Your task to perform on an android device: turn off translation in the chrome app Image 0: 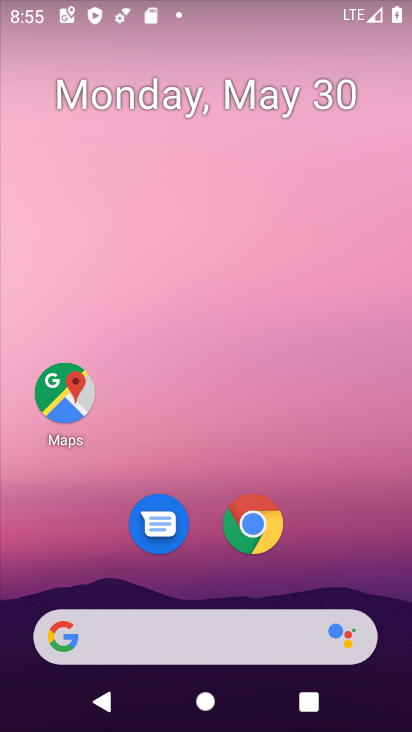
Step 0: click (265, 530)
Your task to perform on an android device: turn off translation in the chrome app Image 1: 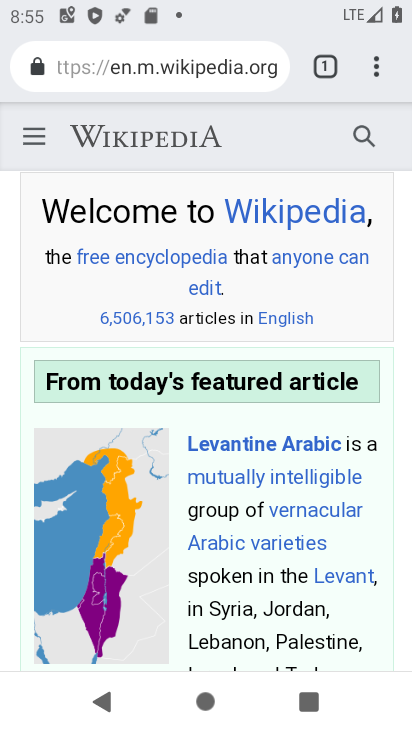
Step 1: click (375, 69)
Your task to perform on an android device: turn off translation in the chrome app Image 2: 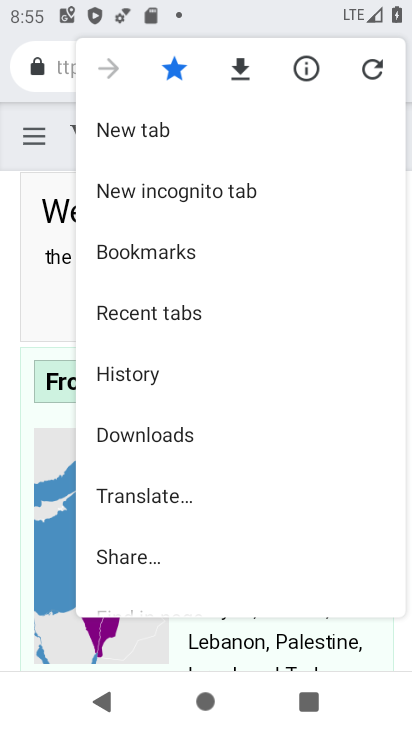
Step 2: drag from (217, 495) to (257, 214)
Your task to perform on an android device: turn off translation in the chrome app Image 3: 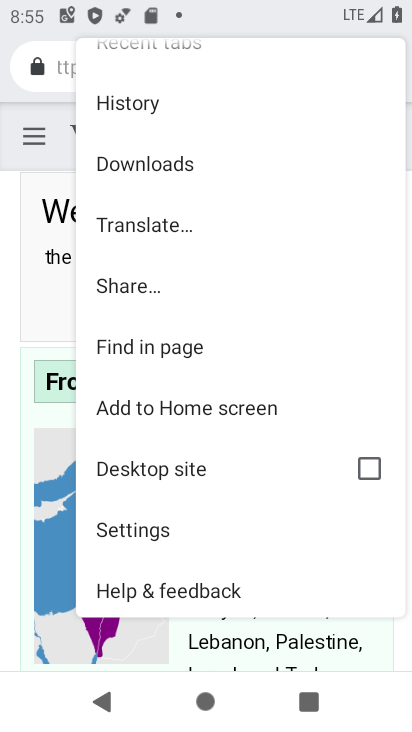
Step 3: click (196, 527)
Your task to perform on an android device: turn off translation in the chrome app Image 4: 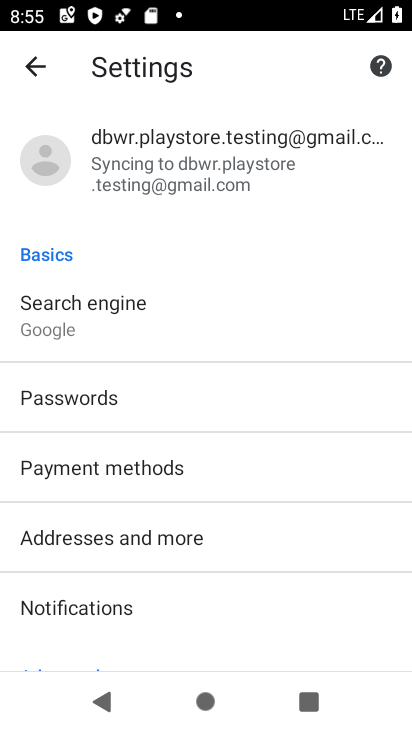
Step 4: drag from (256, 499) to (285, 175)
Your task to perform on an android device: turn off translation in the chrome app Image 5: 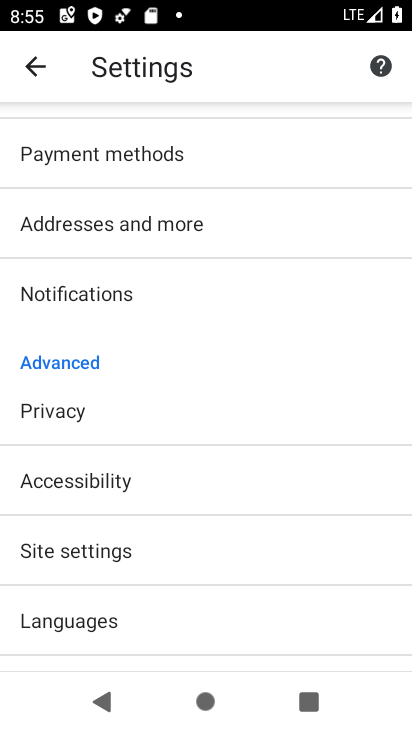
Step 5: click (234, 605)
Your task to perform on an android device: turn off translation in the chrome app Image 6: 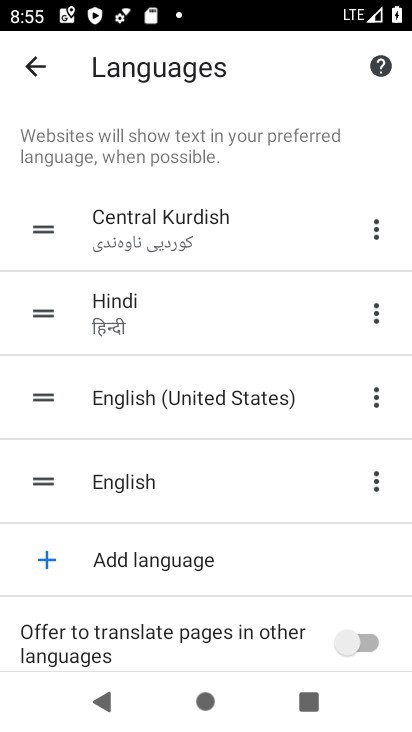
Step 6: task complete